Your task to perform on an android device: Open network settings Image 0: 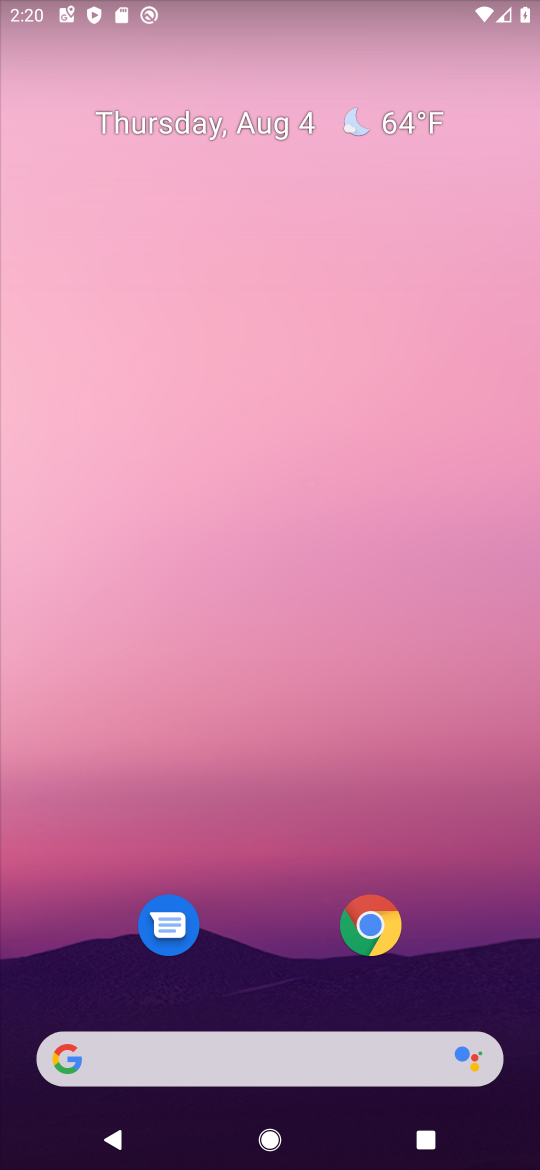
Step 0: drag from (264, 972) to (389, 184)
Your task to perform on an android device: Open network settings Image 1: 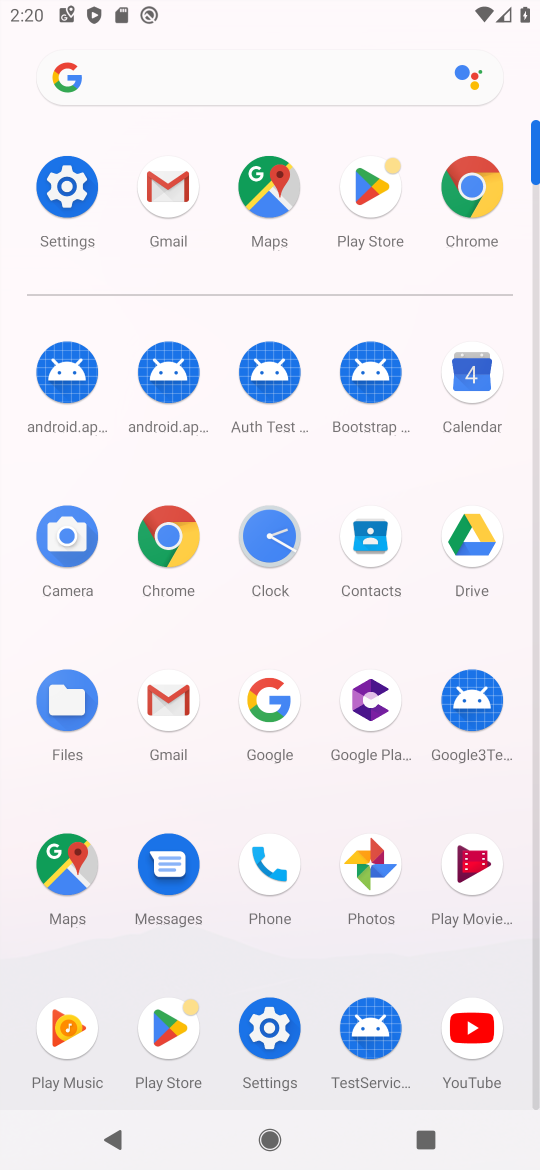
Step 1: click (76, 177)
Your task to perform on an android device: Open network settings Image 2: 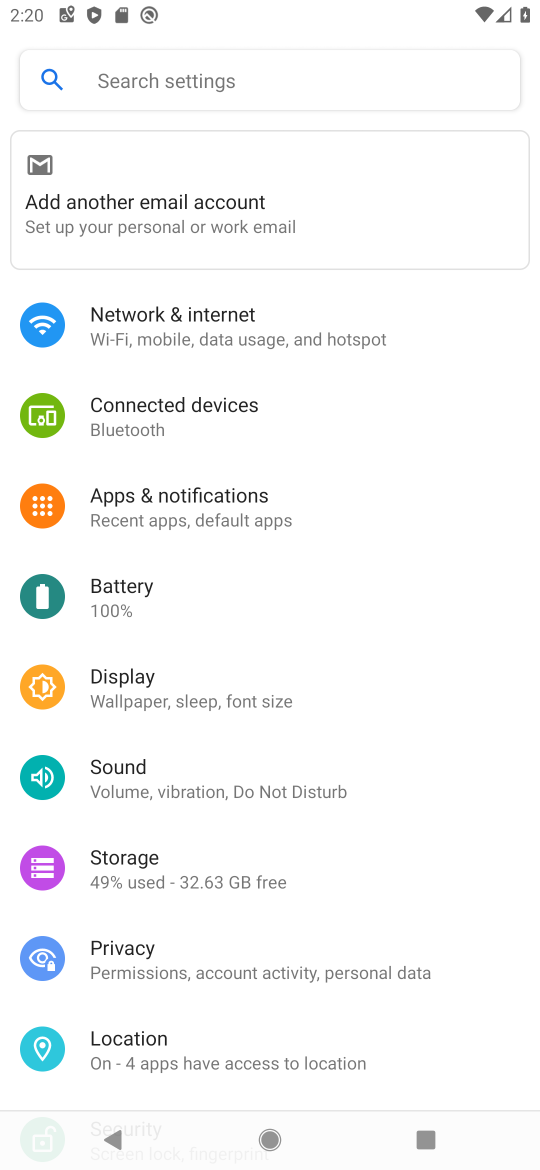
Step 2: click (182, 320)
Your task to perform on an android device: Open network settings Image 3: 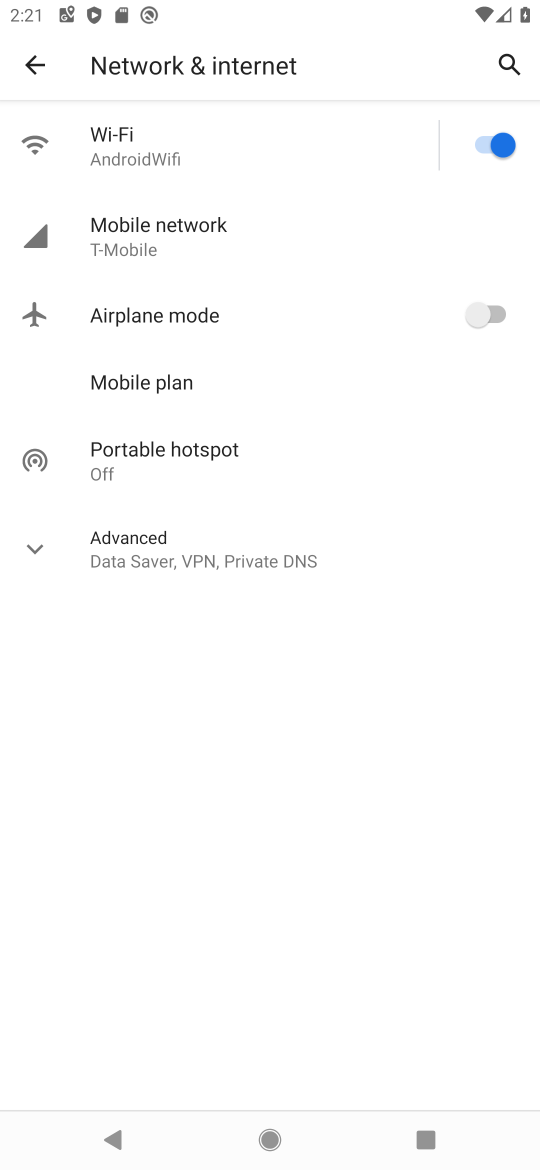
Step 3: task complete